Your task to perform on an android device: add a label to a message in the gmail app Image 0: 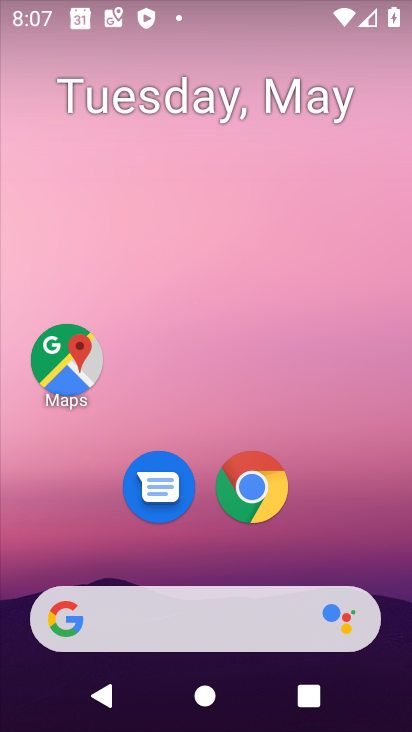
Step 0: drag from (389, 556) to (375, 223)
Your task to perform on an android device: add a label to a message in the gmail app Image 1: 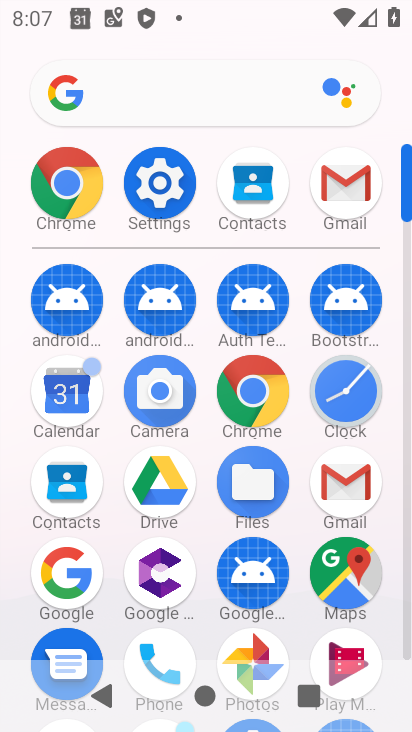
Step 1: click (348, 205)
Your task to perform on an android device: add a label to a message in the gmail app Image 2: 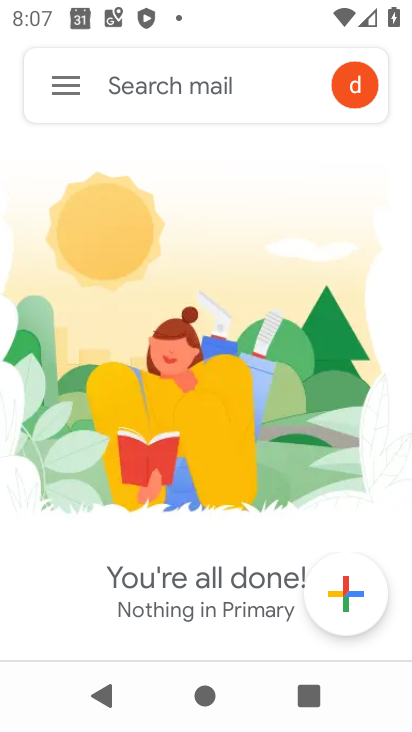
Step 2: task complete